Your task to perform on an android device: Open Google Chrome Image 0: 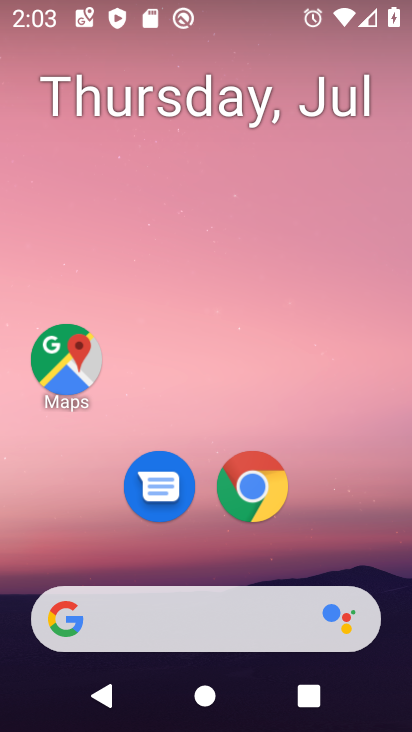
Step 0: click (252, 488)
Your task to perform on an android device: Open Google Chrome Image 1: 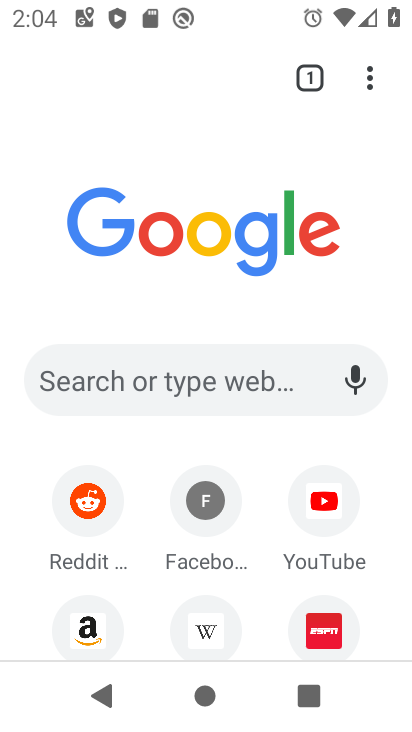
Step 1: task complete